Your task to perform on an android device: What's the weather? Image 0: 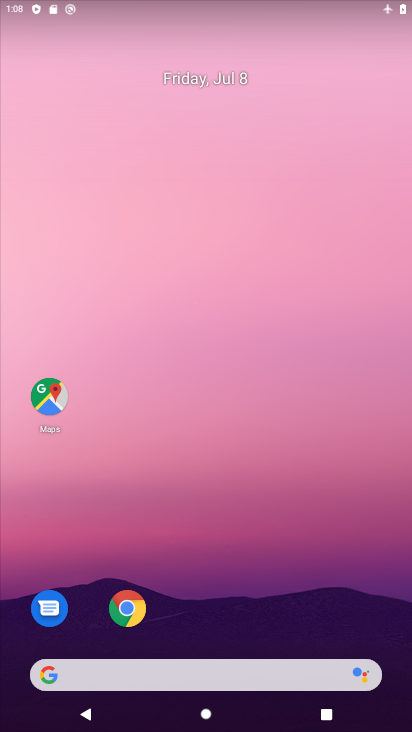
Step 0: drag from (11, 243) to (364, 266)
Your task to perform on an android device: What's the weather? Image 1: 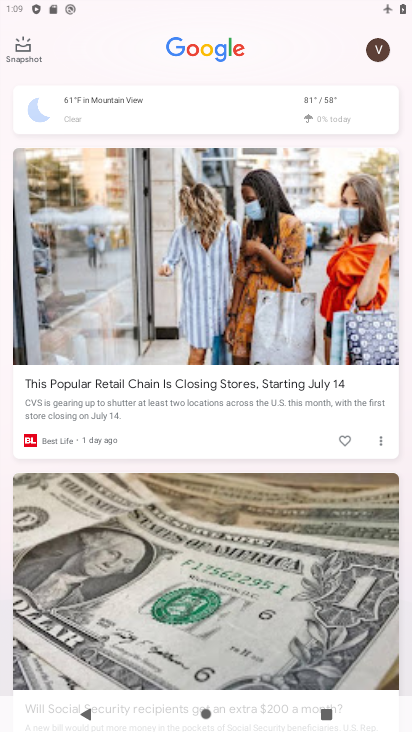
Step 1: click (311, 99)
Your task to perform on an android device: What's the weather? Image 2: 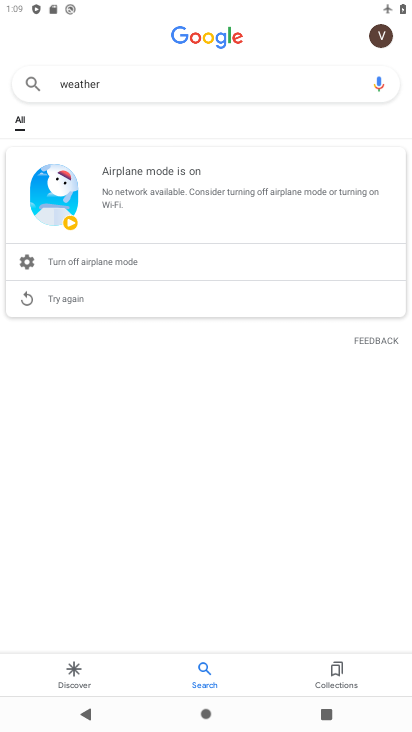
Step 2: click (28, 289)
Your task to perform on an android device: What's the weather? Image 3: 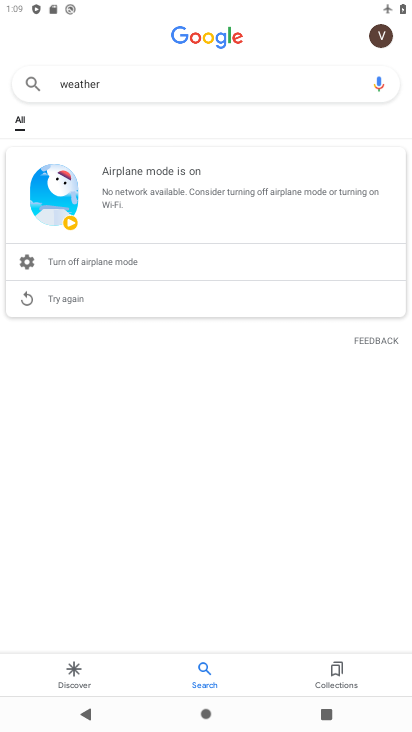
Step 3: task complete